Your task to perform on an android device: open chrome and create a bookmark for the current page Image 0: 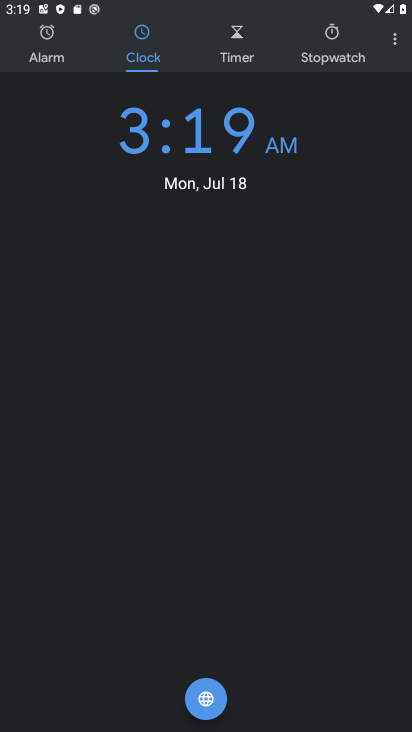
Step 0: press home button
Your task to perform on an android device: open chrome and create a bookmark for the current page Image 1: 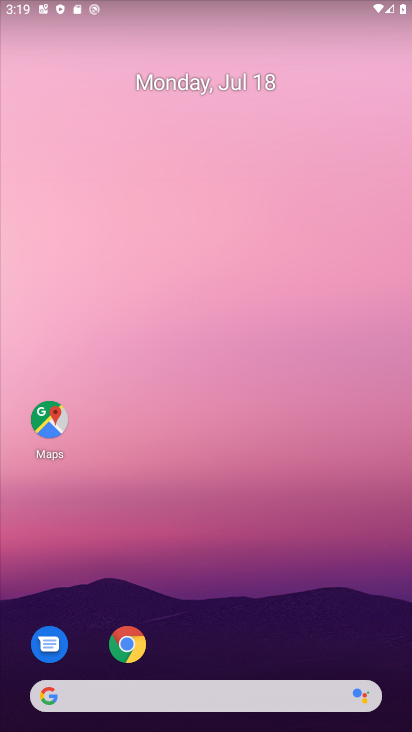
Step 1: click (129, 646)
Your task to perform on an android device: open chrome and create a bookmark for the current page Image 2: 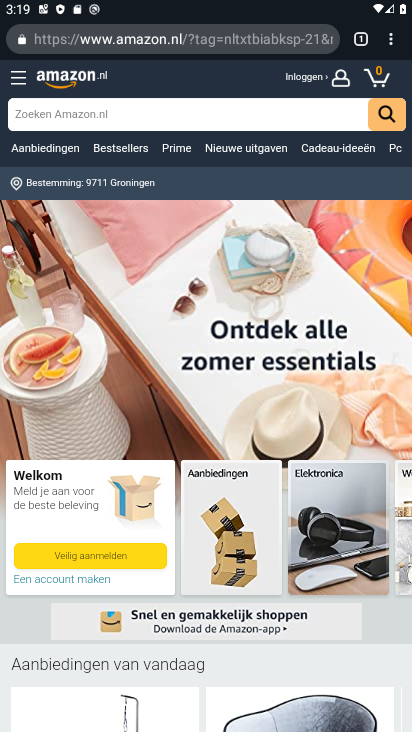
Step 2: click (391, 47)
Your task to perform on an android device: open chrome and create a bookmark for the current page Image 3: 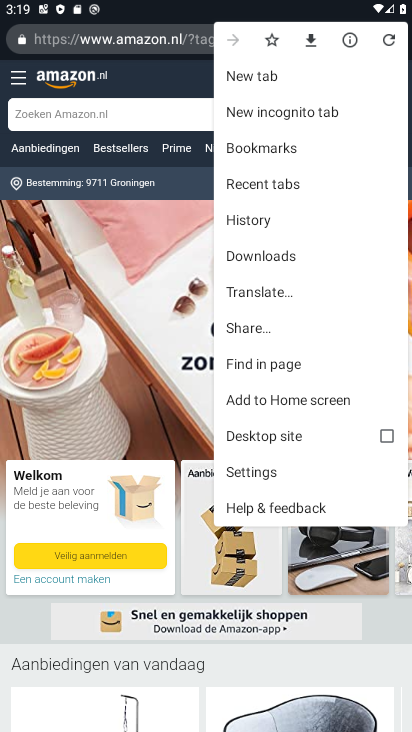
Step 3: click (271, 39)
Your task to perform on an android device: open chrome and create a bookmark for the current page Image 4: 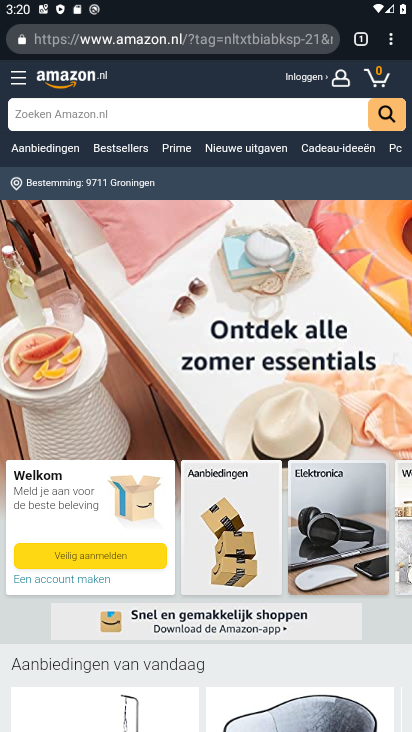
Step 4: task complete